Your task to perform on an android device: When is my next appointment? Image 0: 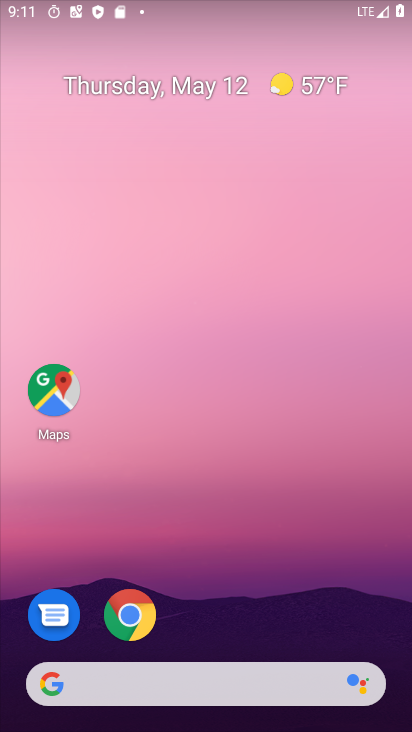
Step 0: drag from (254, 575) to (210, 28)
Your task to perform on an android device: When is my next appointment? Image 1: 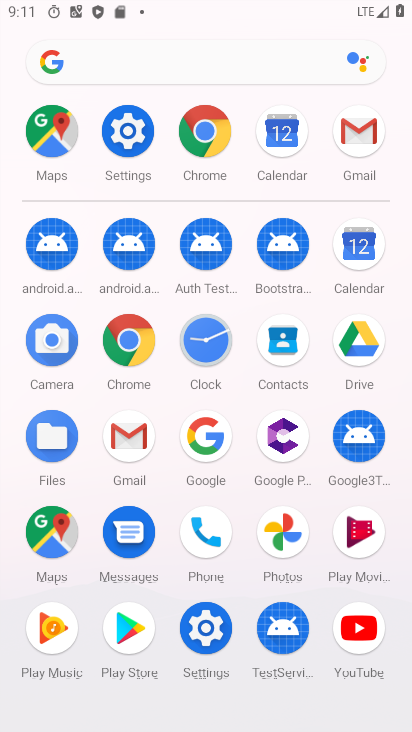
Step 1: drag from (12, 526) to (13, 199)
Your task to perform on an android device: When is my next appointment? Image 2: 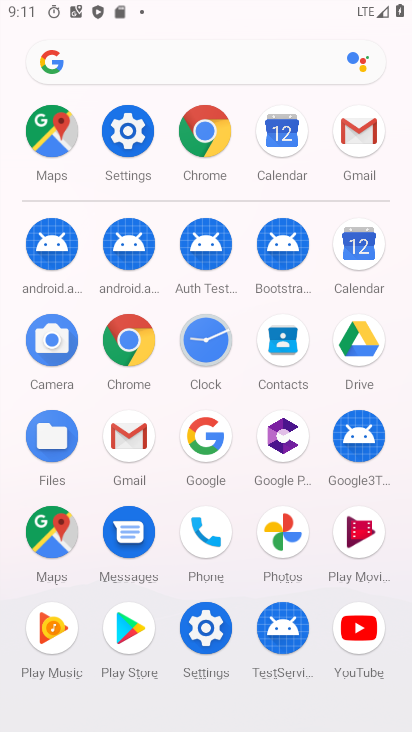
Step 2: click (356, 242)
Your task to perform on an android device: When is my next appointment? Image 3: 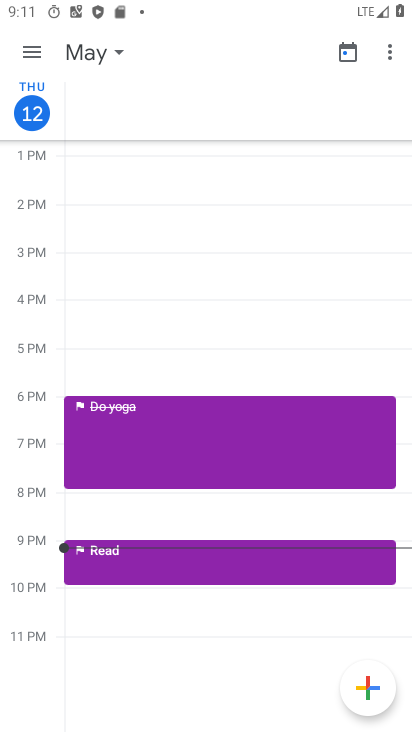
Step 3: click (30, 43)
Your task to perform on an android device: When is my next appointment? Image 4: 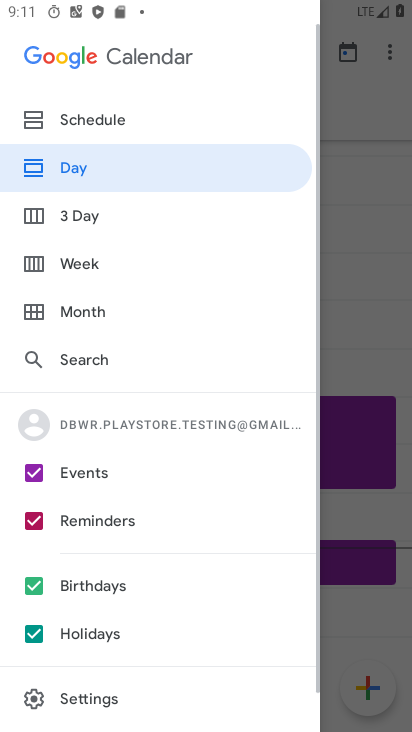
Step 4: click (122, 119)
Your task to perform on an android device: When is my next appointment? Image 5: 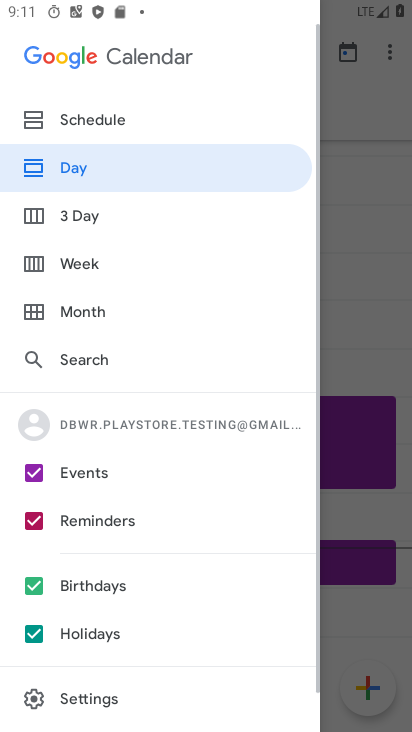
Step 5: click (119, 112)
Your task to perform on an android device: When is my next appointment? Image 6: 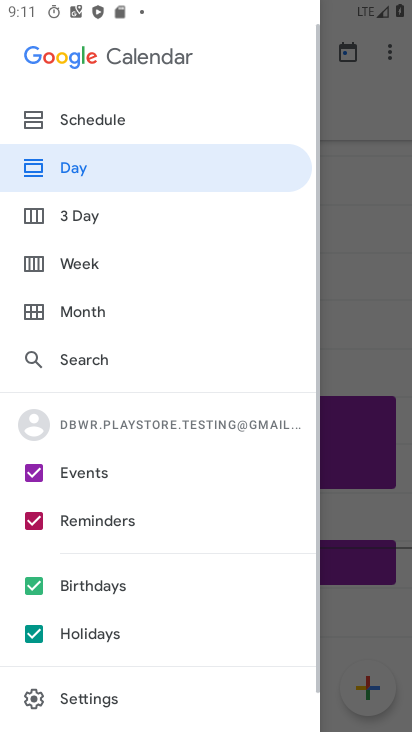
Step 6: click (61, 112)
Your task to perform on an android device: When is my next appointment? Image 7: 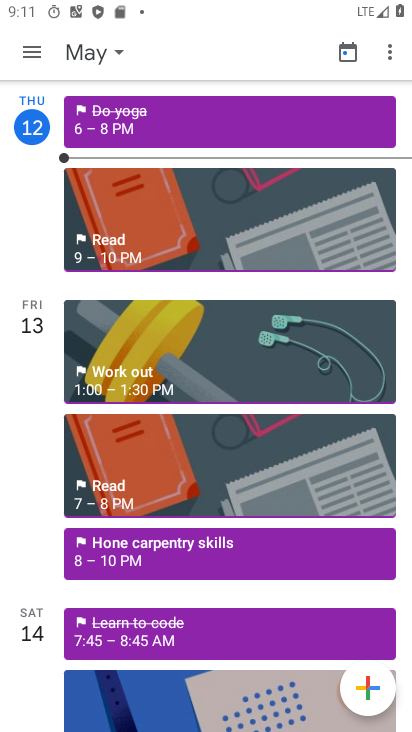
Step 7: click (37, 48)
Your task to perform on an android device: When is my next appointment? Image 8: 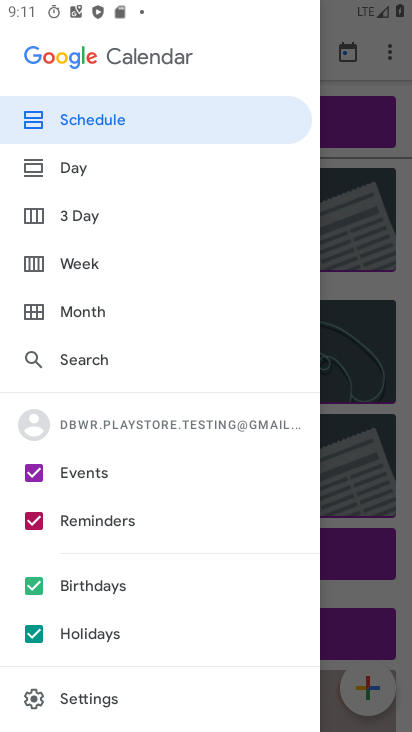
Step 8: click (114, 116)
Your task to perform on an android device: When is my next appointment? Image 9: 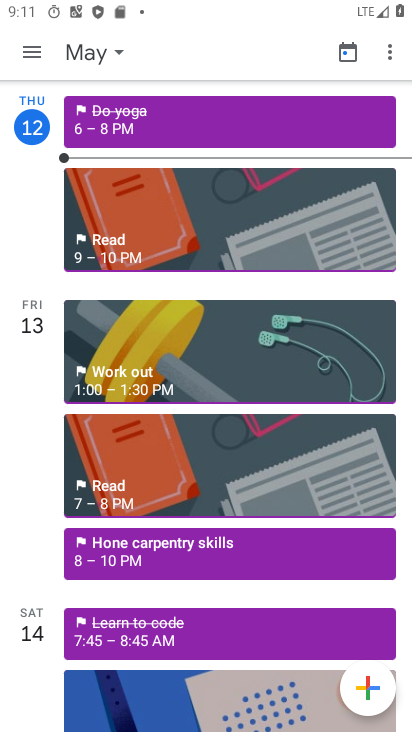
Step 9: task complete